Your task to perform on an android device: find which apps use the phone's location Image 0: 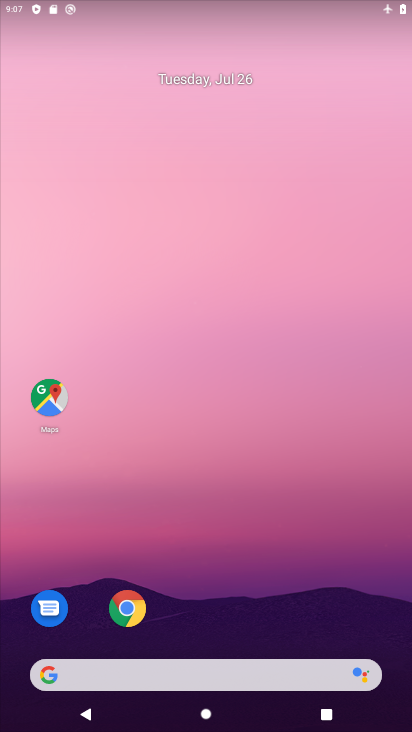
Step 0: drag from (218, 620) to (231, 205)
Your task to perform on an android device: find which apps use the phone's location Image 1: 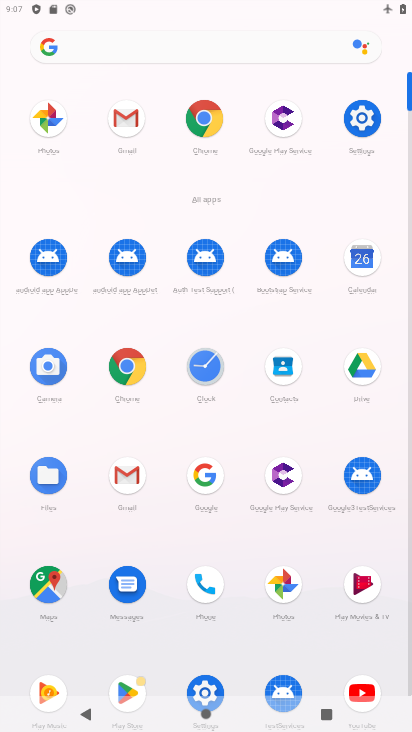
Step 1: click (375, 124)
Your task to perform on an android device: find which apps use the phone's location Image 2: 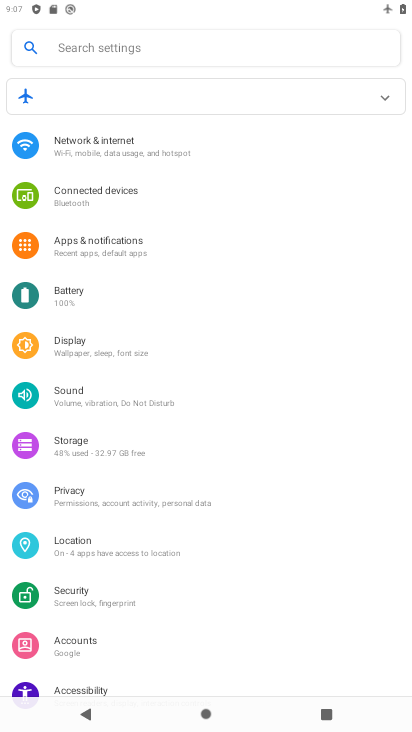
Step 2: click (151, 548)
Your task to perform on an android device: find which apps use the phone's location Image 3: 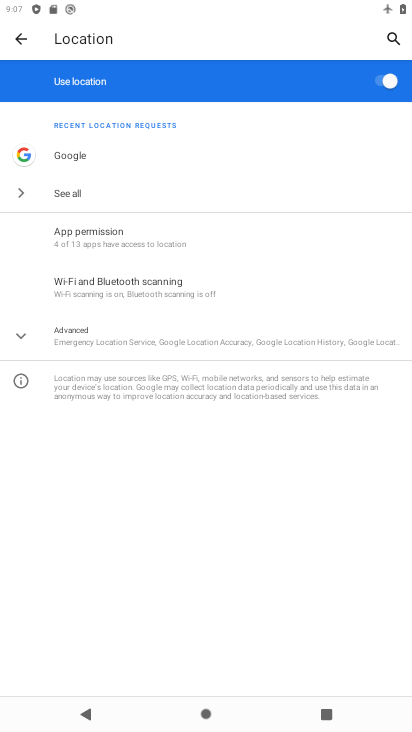
Step 3: click (146, 243)
Your task to perform on an android device: find which apps use the phone's location Image 4: 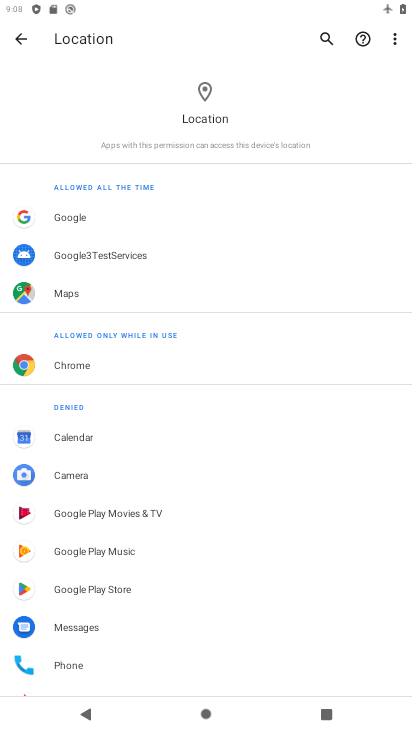
Step 4: task complete